Your task to perform on an android device: Open Android settings Image 0: 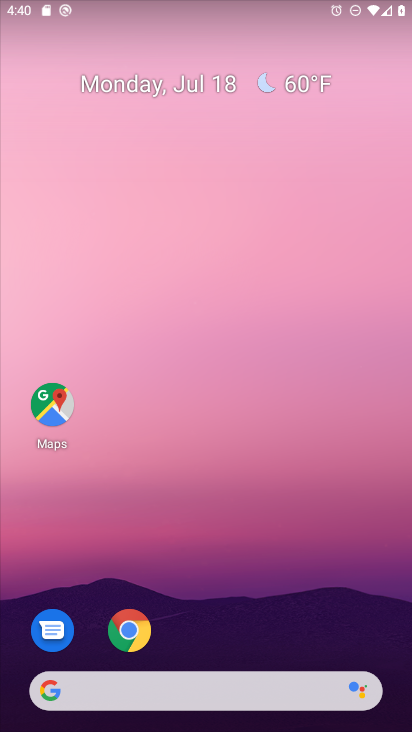
Step 0: drag from (226, 507) to (241, 99)
Your task to perform on an android device: Open Android settings Image 1: 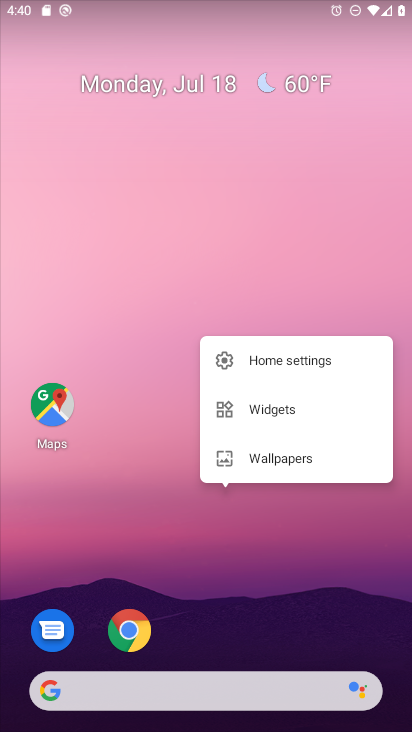
Step 1: click (165, 539)
Your task to perform on an android device: Open Android settings Image 2: 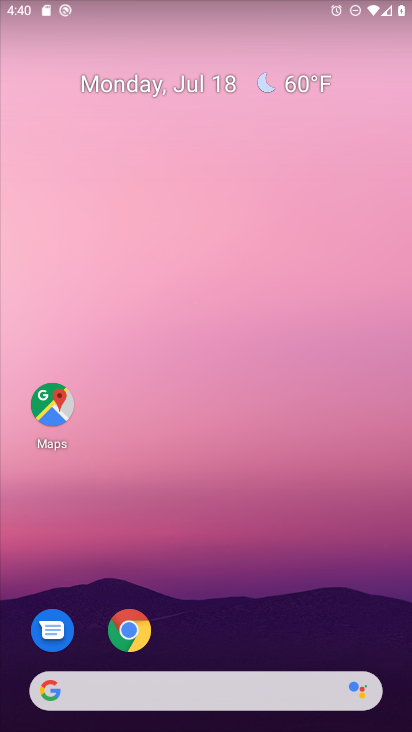
Step 2: drag from (238, 571) to (242, 57)
Your task to perform on an android device: Open Android settings Image 3: 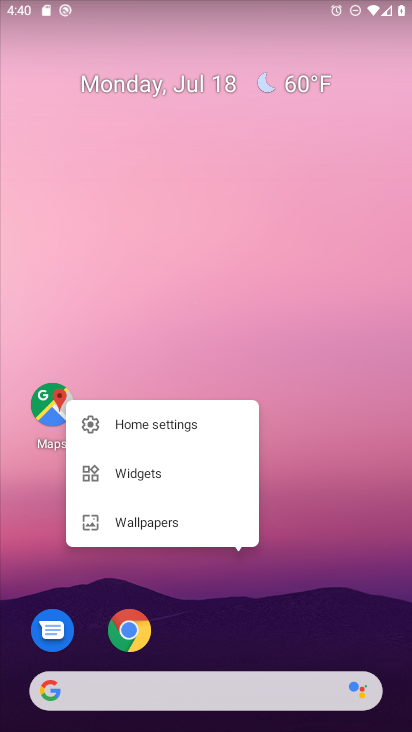
Step 3: click (336, 522)
Your task to perform on an android device: Open Android settings Image 4: 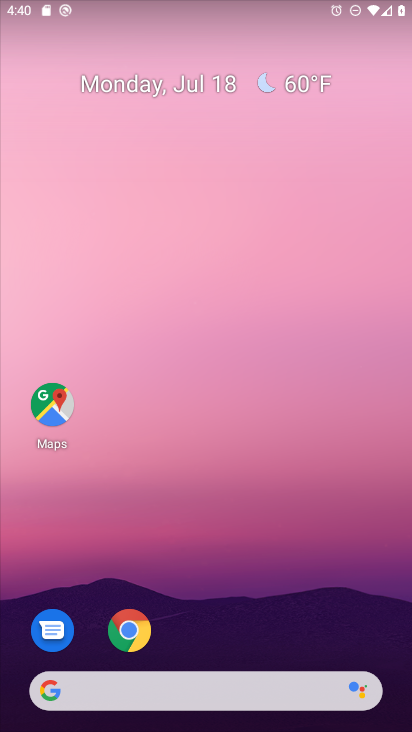
Step 4: drag from (264, 642) to (225, 115)
Your task to perform on an android device: Open Android settings Image 5: 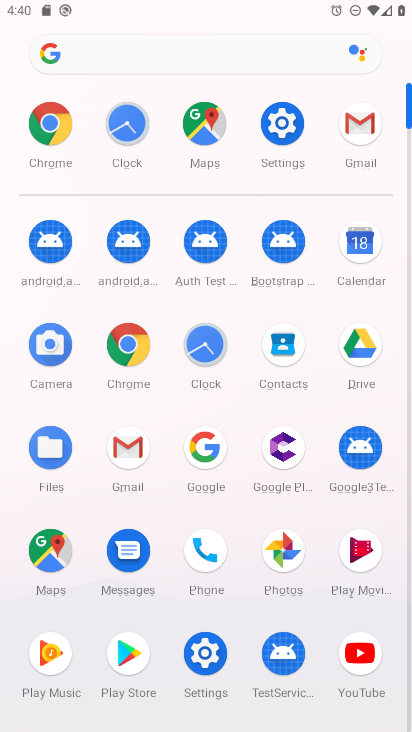
Step 5: click (275, 118)
Your task to perform on an android device: Open Android settings Image 6: 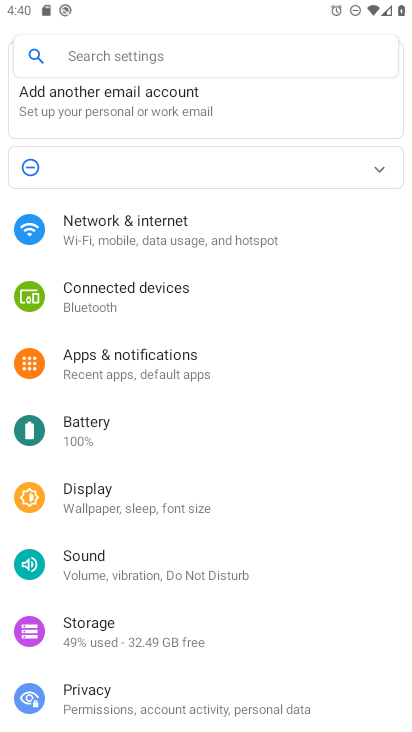
Step 6: task complete